Your task to perform on an android device: Open accessibility settings Image 0: 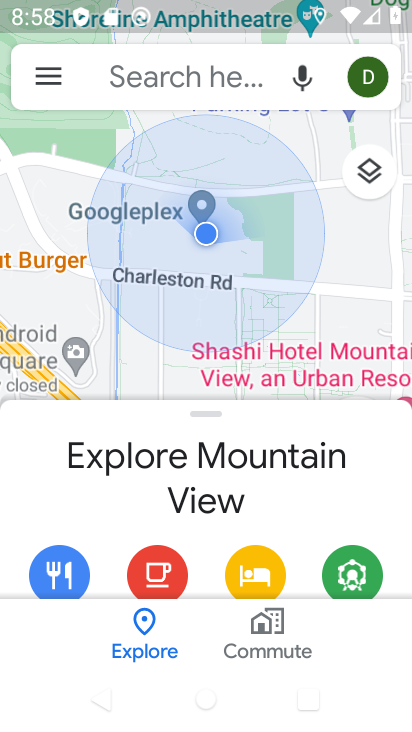
Step 0: press home button
Your task to perform on an android device: Open accessibility settings Image 1: 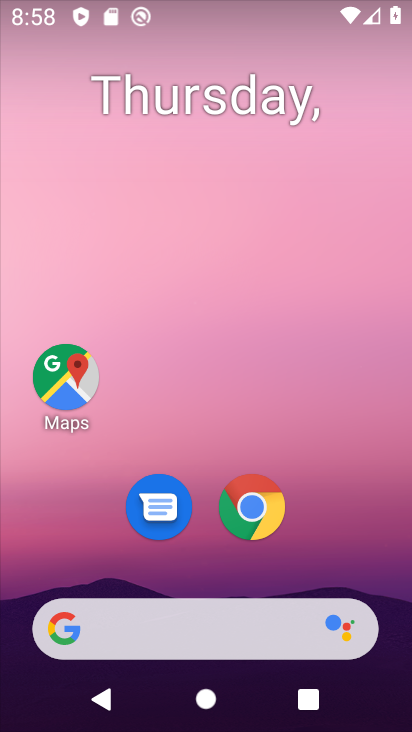
Step 1: drag from (209, 510) to (208, 5)
Your task to perform on an android device: Open accessibility settings Image 2: 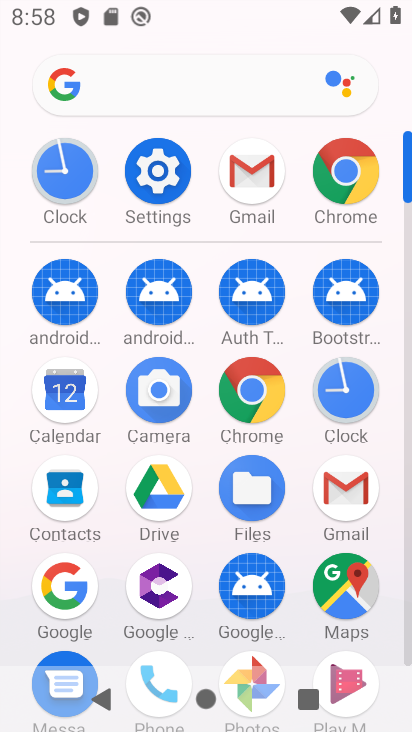
Step 2: click (151, 172)
Your task to perform on an android device: Open accessibility settings Image 3: 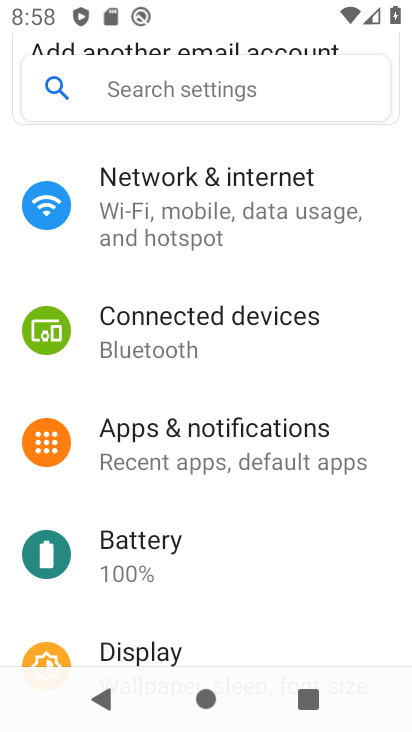
Step 3: drag from (205, 532) to (307, 36)
Your task to perform on an android device: Open accessibility settings Image 4: 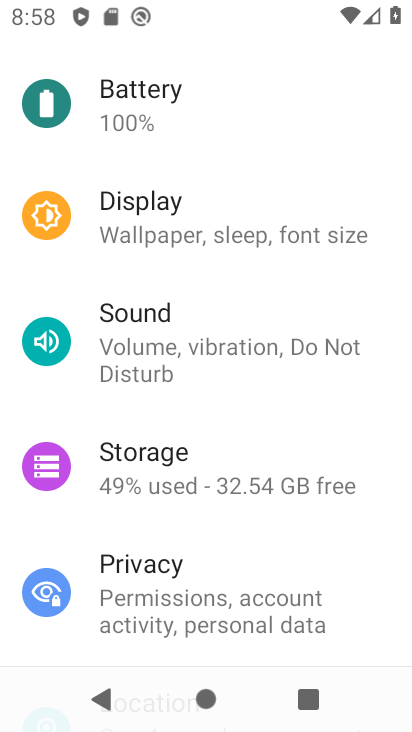
Step 4: drag from (256, 468) to (306, 46)
Your task to perform on an android device: Open accessibility settings Image 5: 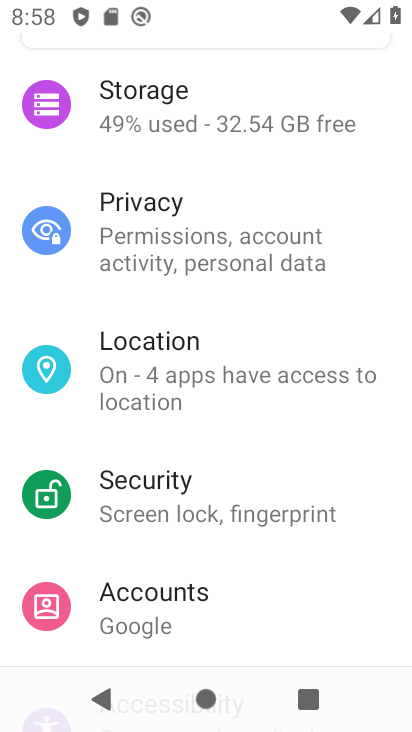
Step 5: drag from (173, 555) to (227, 191)
Your task to perform on an android device: Open accessibility settings Image 6: 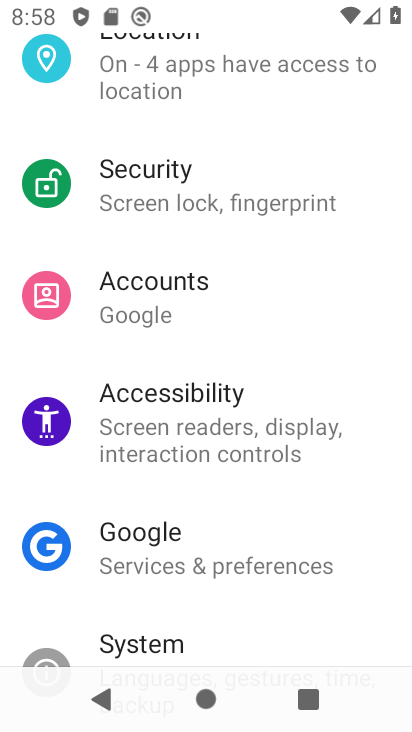
Step 6: click (177, 430)
Your task to perform on an android device: Open accessibility settings Image 7: 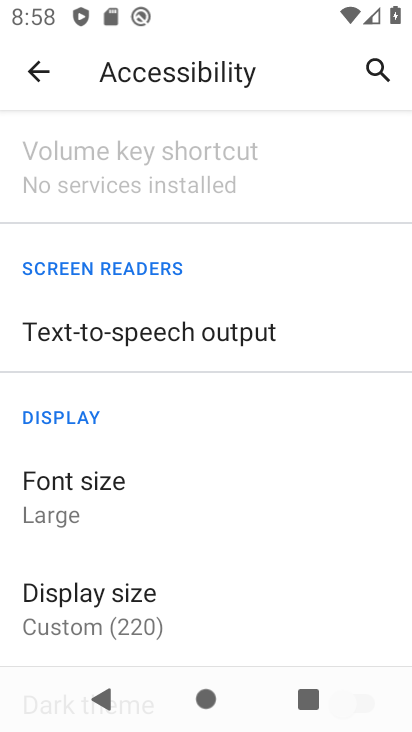
Step 7: task complete